Your task to perform on an android device: What's the weather going to be tomorrow? Image 0: 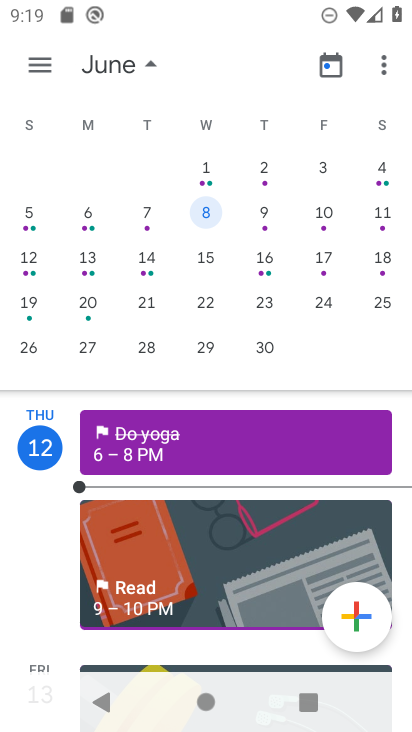
Step 0: press home button
Your task to perform on an android device: What's the weather going to be tomorrow? Image 1: 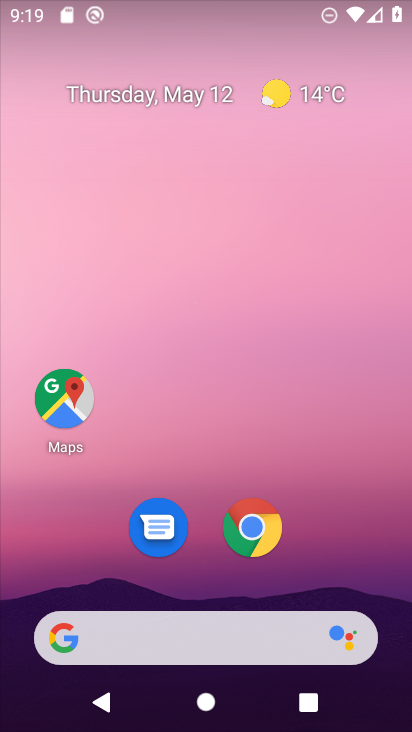
Step 1: click (271, 612)
Your task to perform on an android device: What's the weather going to be tomorrow? Image 2: 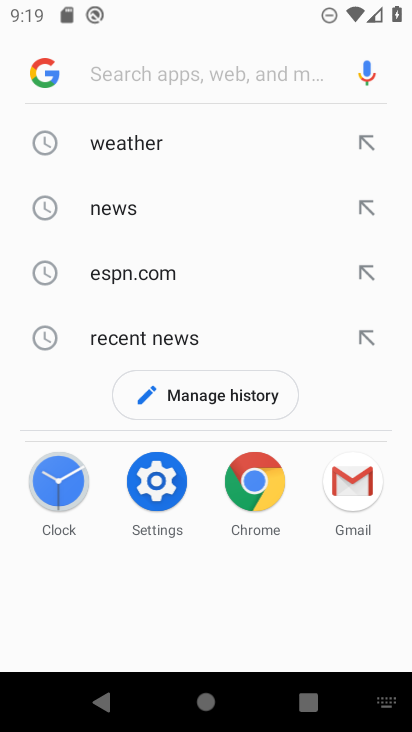
Step 2: click (266, 628)
Your task to perform on an android device: What's the weather going to be tomorrow? Image 3: 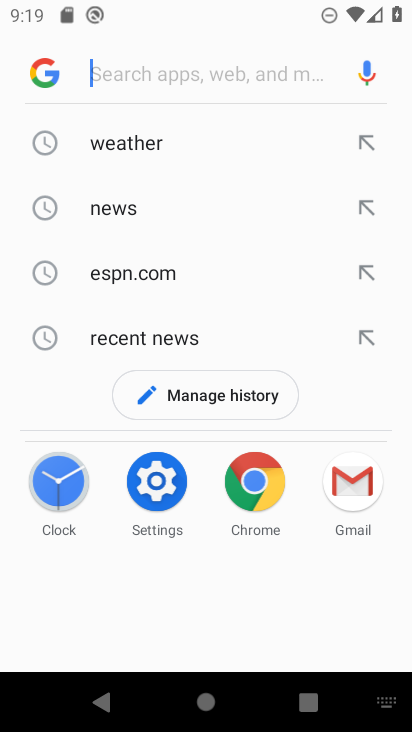
Step 3: click (150, 147)
Your task to perform on an android device: What's the weather going to be tomorrow? Image 4: 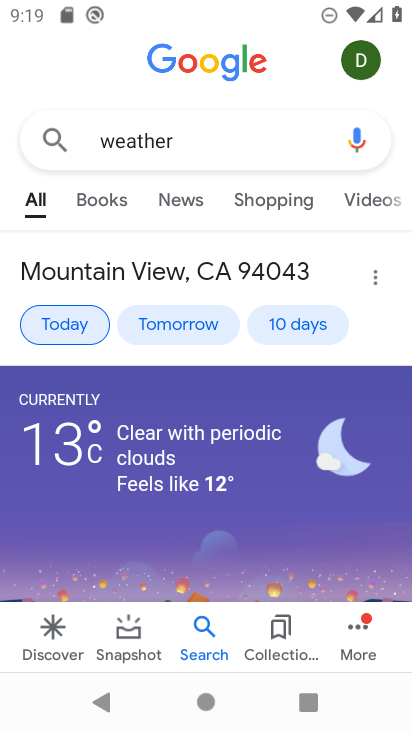
Step 4: click (130, 323)
Your task to perform on an android device: What's the weather going to be tomorrow? Image 5: 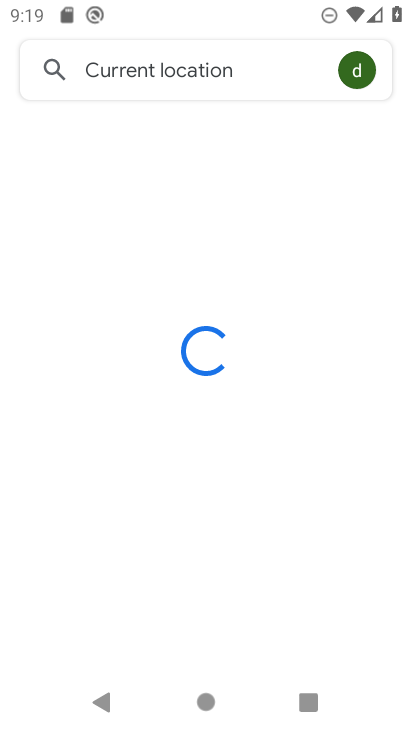
Step 5: click (189, 323)
Your task to perform on an android device: What's the weather going to be tomorrow? Image 6: 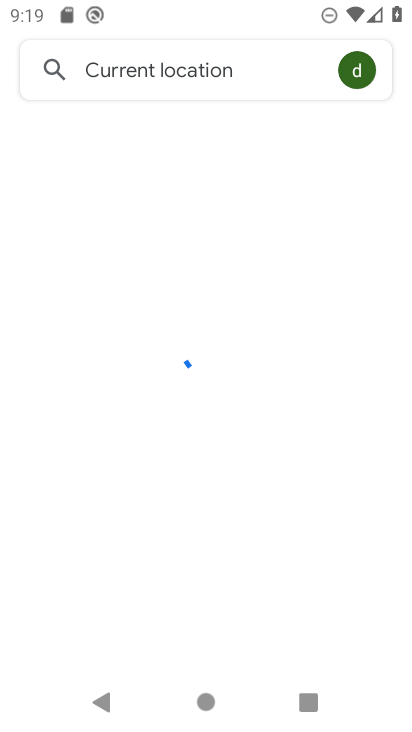
Step 6: click (189, 323)
Your task to perform on an android device: What's the weather going to be tomorrow? Image 7: 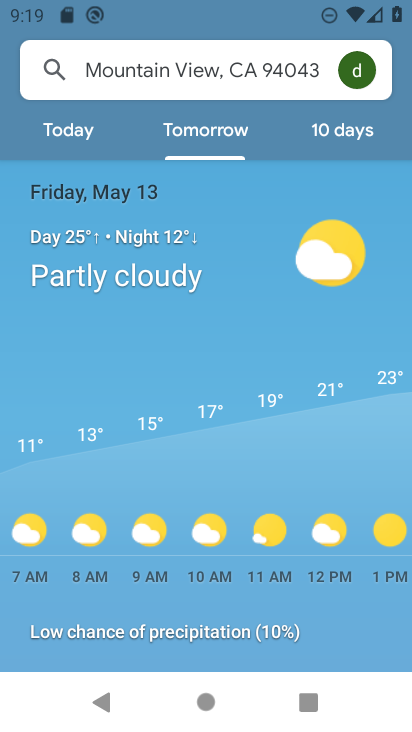
Step 7: task complete